Your task to perform on an android device: Go to Amazon Image 0: 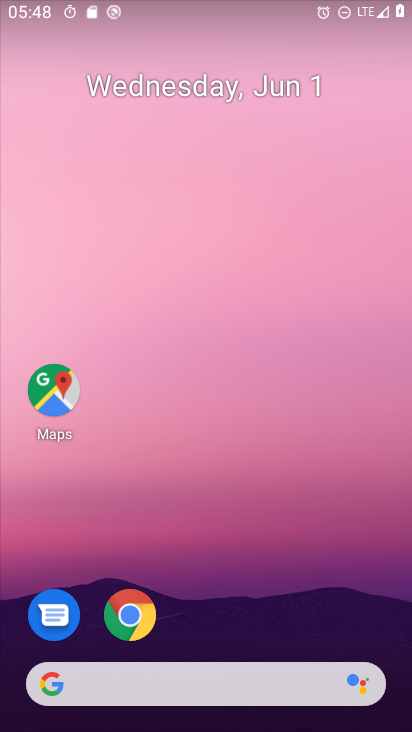
Step 0: drag from (322, 621) to (228, 79)
Your task to perform on an android device: Go to Amazon Image 1: 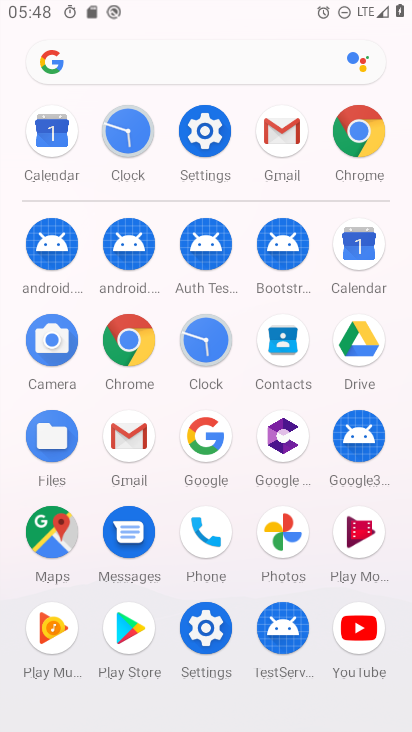
Step 1: click (132, 353)
Your task to perform on an android device: Go to Amazon Image 2: 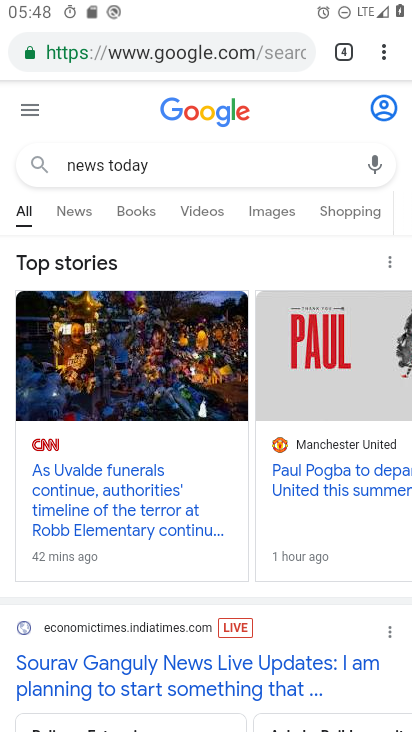
Step 2: drag from (282, 92) to (228, 101)
Your task to perform on an android device: Go to Amazon Image 3: 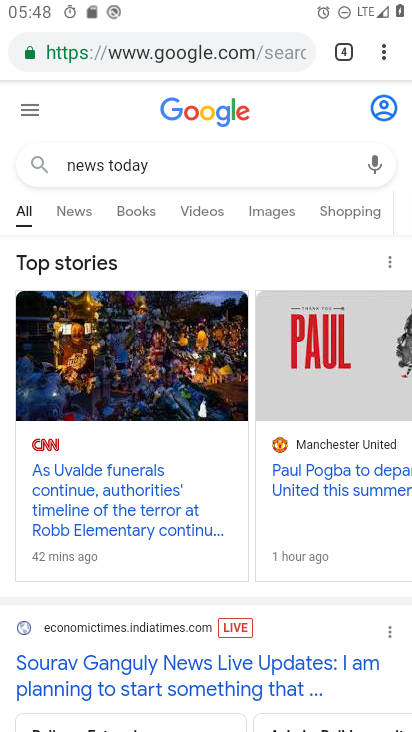
Step 3: click (380, 52)
Your task to perform on an android device: Go to Amazon Image 4: 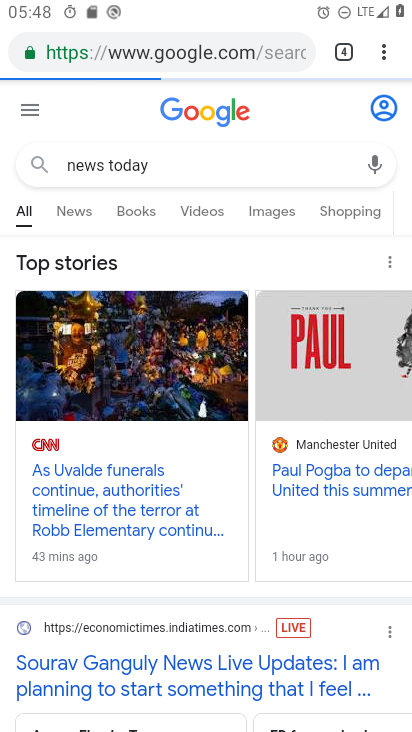
Step 4: drag from (382, 51) to (277, 97)
Your task to perform on an android device: Go to Amazon Image 5: 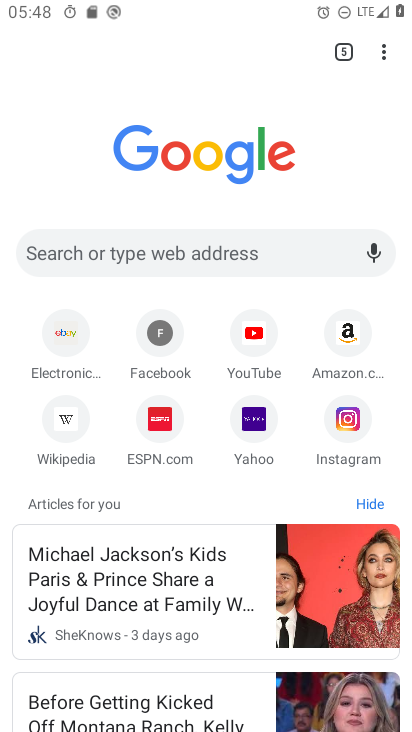
Step 5: click (334, 344)
Your task to perform on an android device: Go to Amazon Image 6: 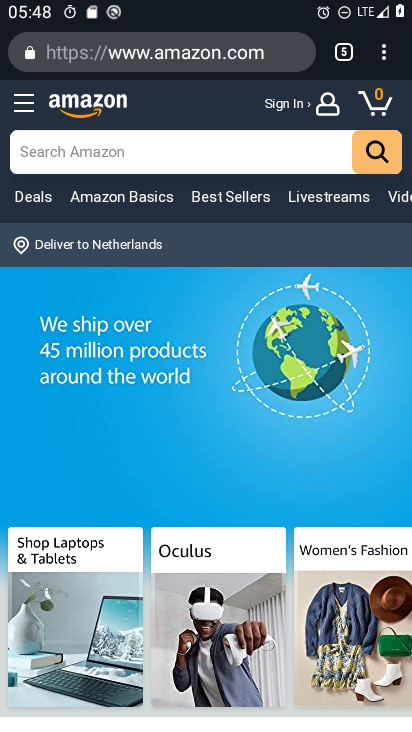
Step 6: task complete